Your task to perform on an android device: show emergency info Image 0: 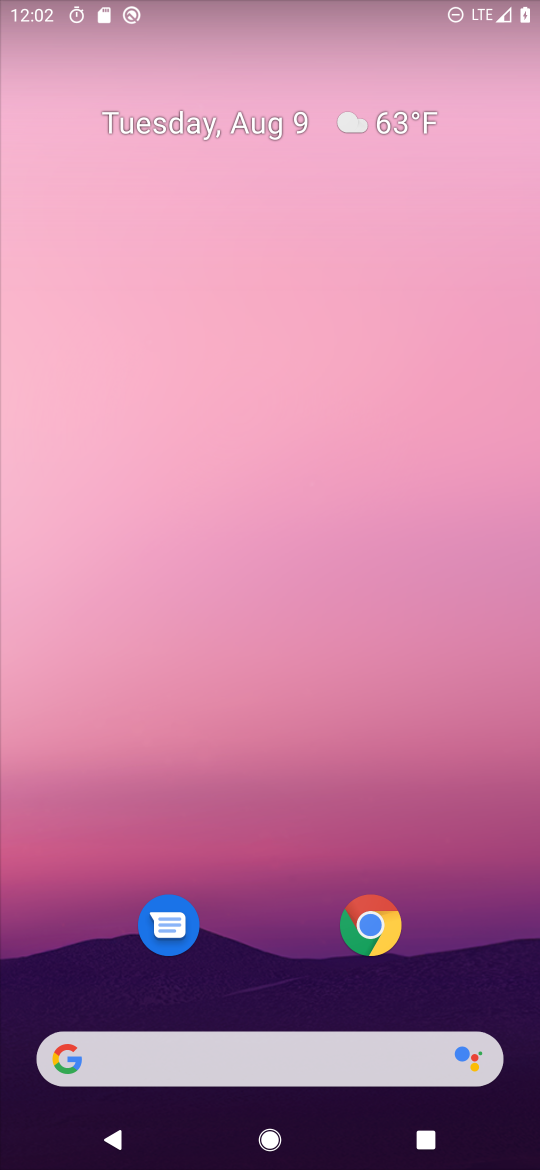
Step 0: drag from (317, 705) to (367, 245)
Your task to perform on an android device: show emergency info Image 1: 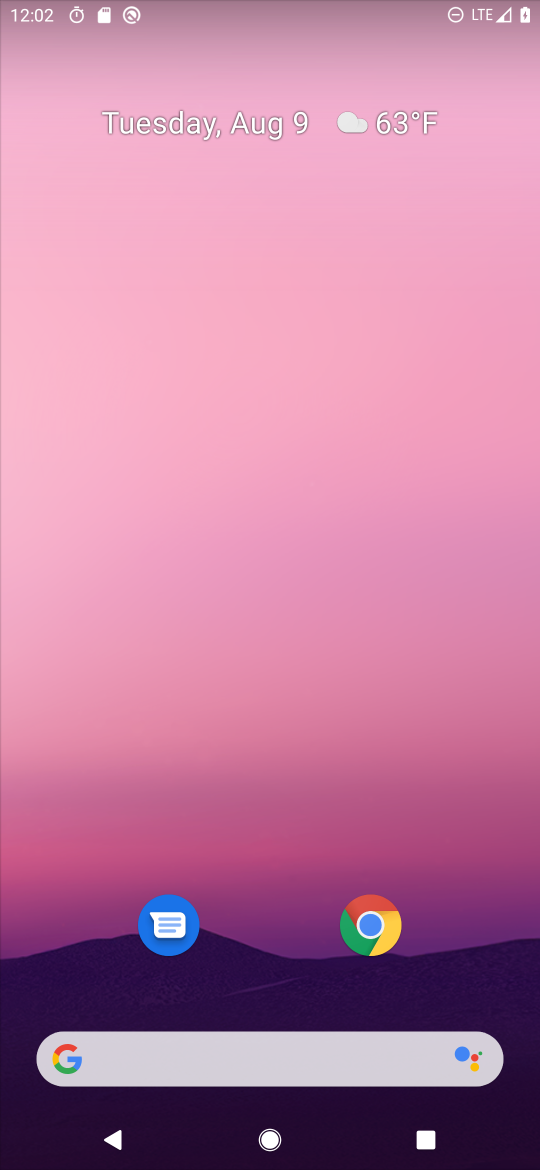
Step 1: drag from (274, 808) to (420, 163)
Your task to perform on an android device: show emergency info Image 2: 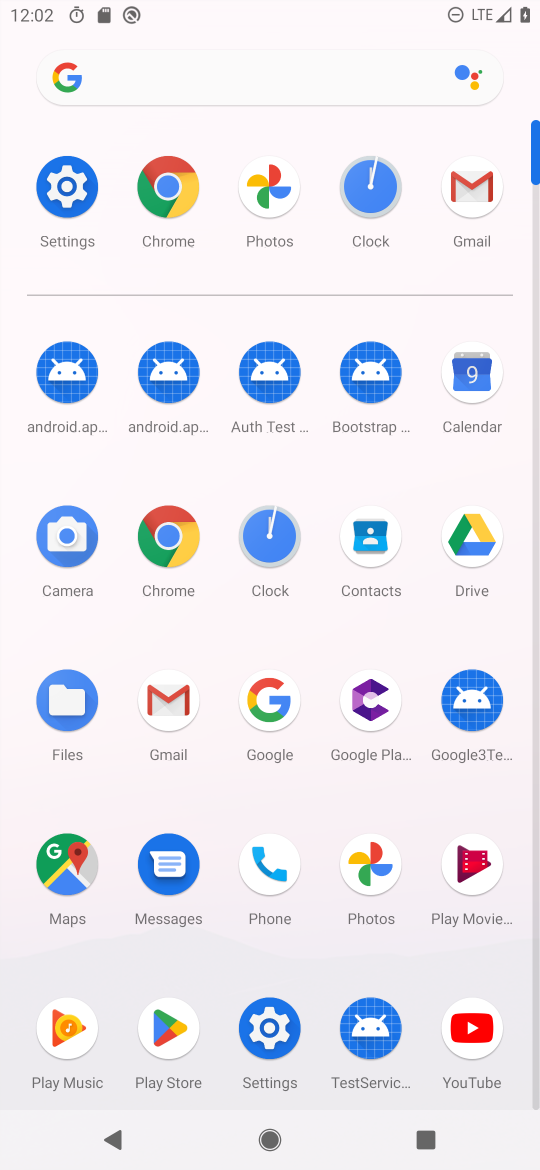
Step 2: click (55, 159)
Your task to perform on an android device: show emergency info Image 3: 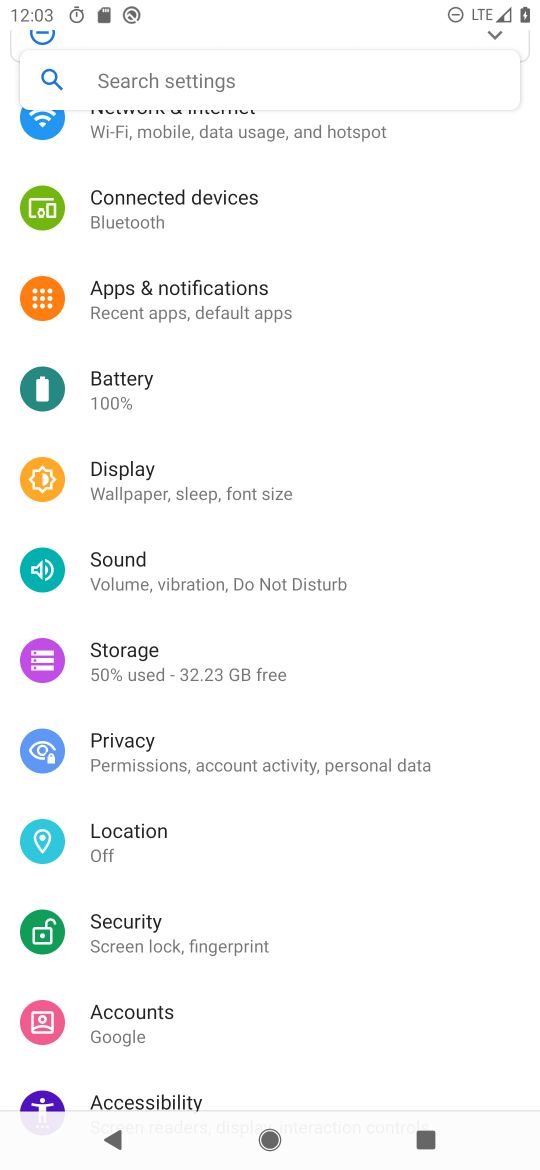
Step 3: drag from (236, 912) to (441, 53)
Your task to perform on an android device: show emergency info Image 4: 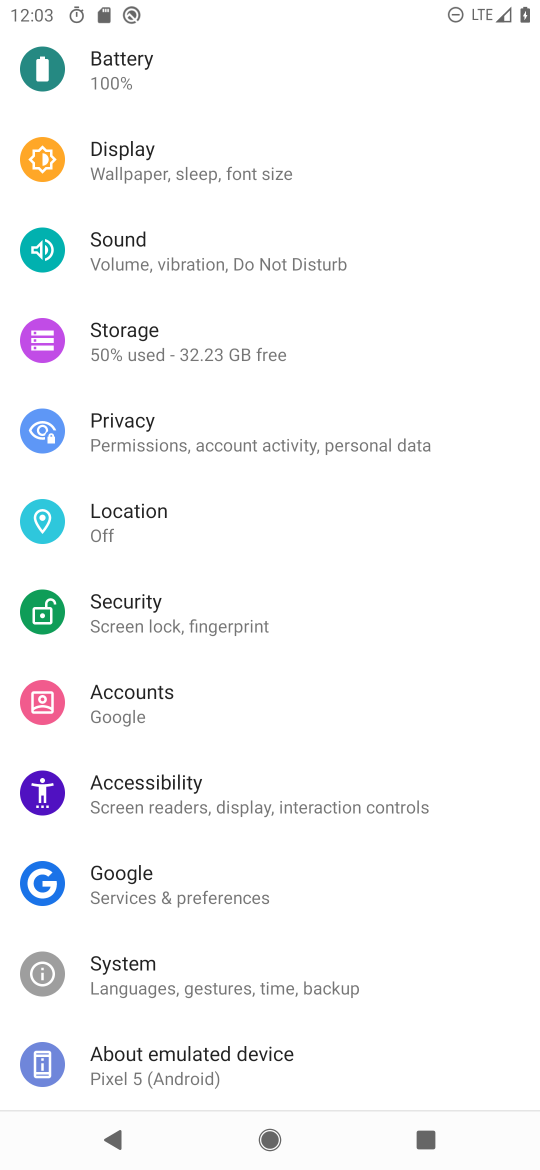
Step 4: click (94, 1071)
Your task to perform on an android device: show emergency info Image 5: 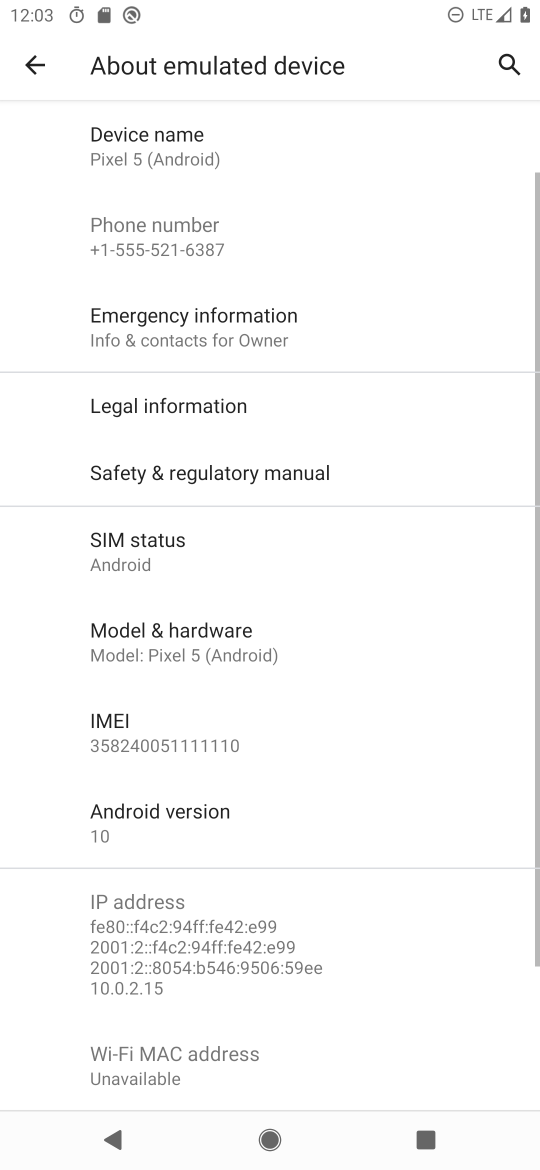
Step 5: click (252, 323)
Your task to perform on an android device: show emergency info Image 6: 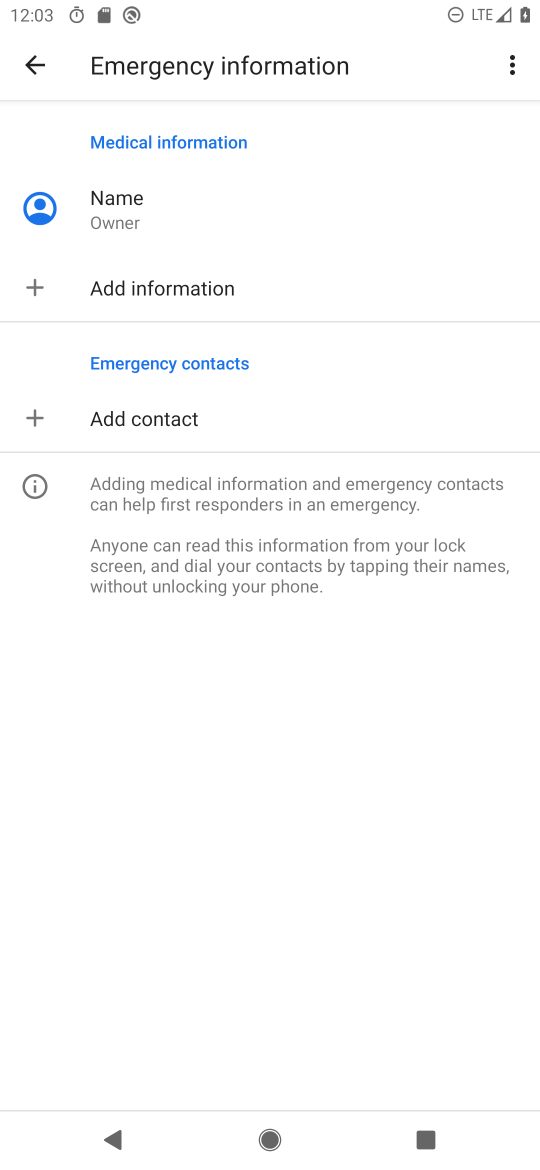
Step 6: task complete